Your task to perform on an android device: Open Reddit.com Image 0: 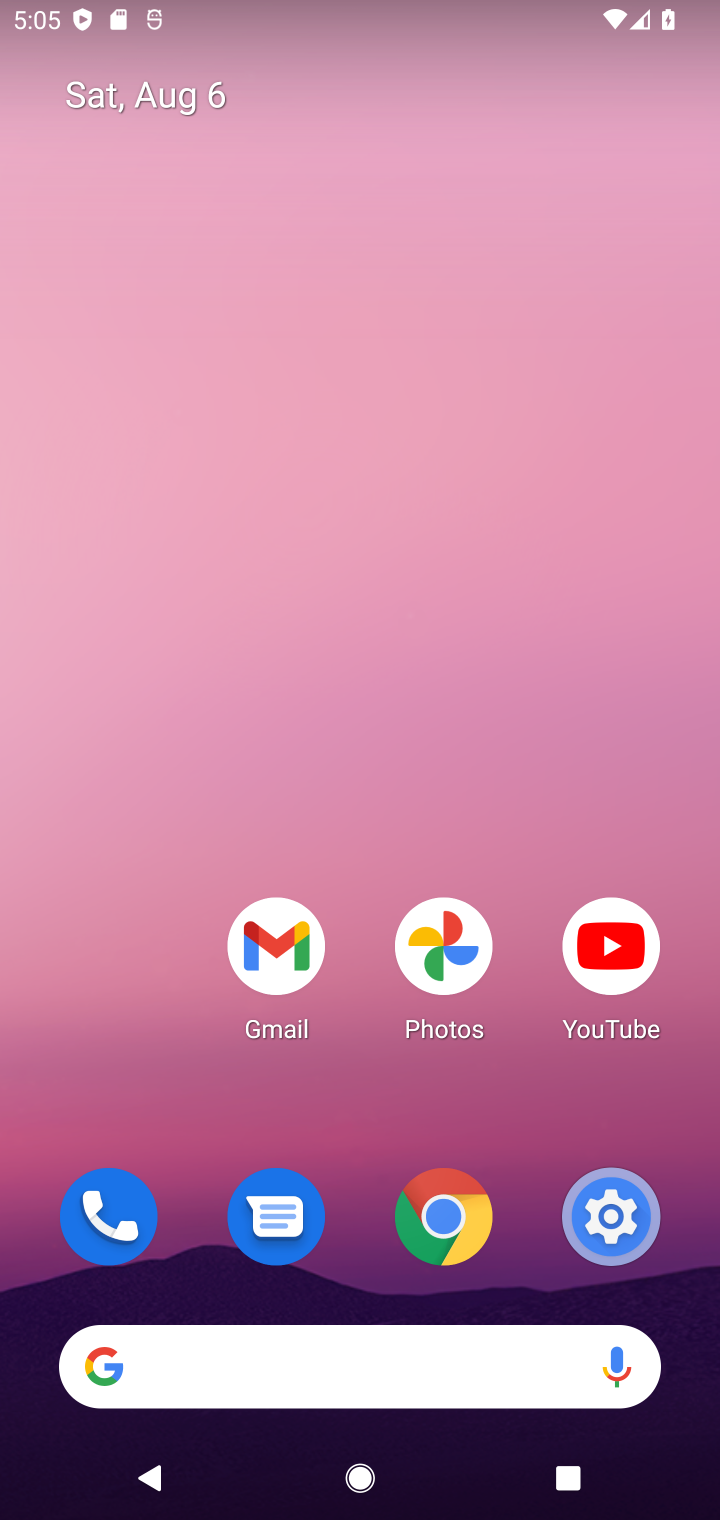
Step 0: drag from (290, 680) to (225, 16)
Your task to perform on an android device: Open Reddit.com Image 1: 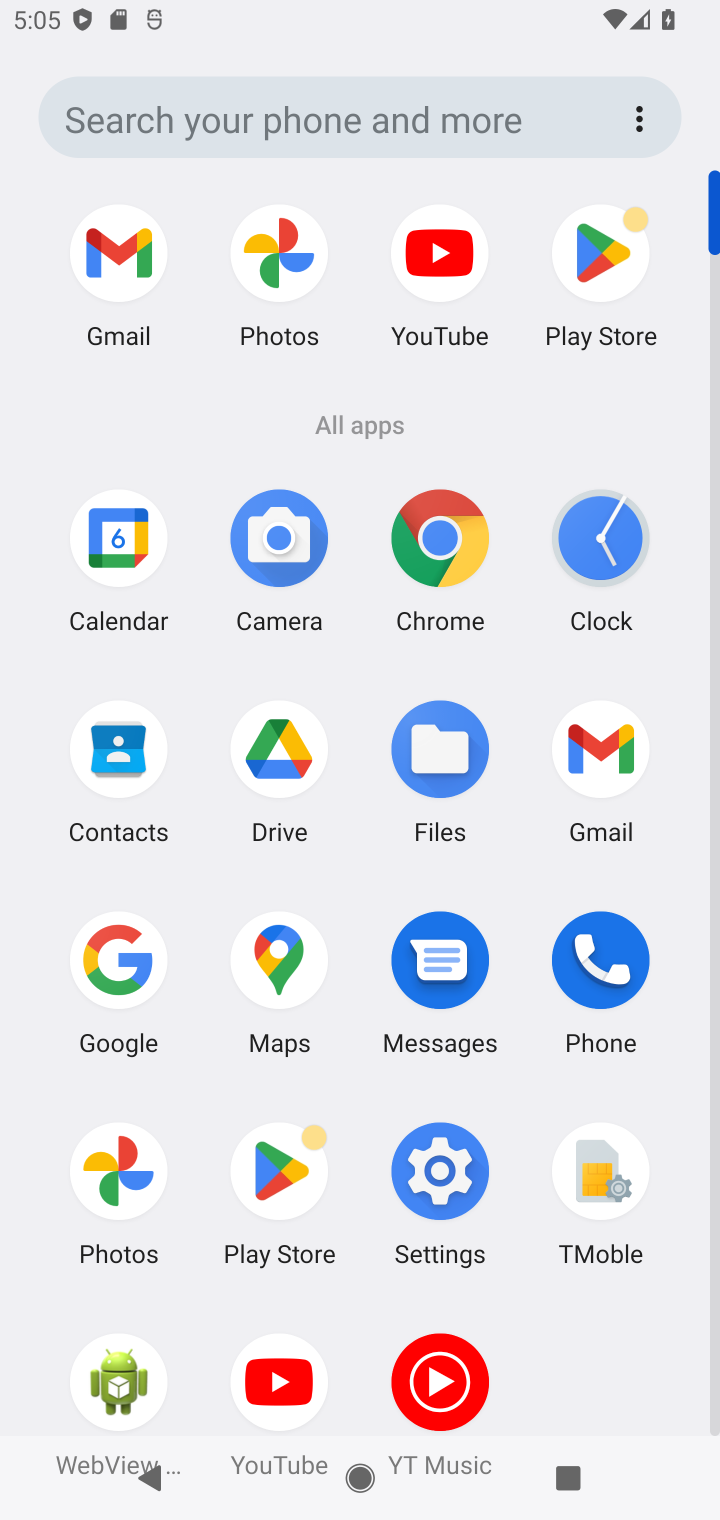
Step 1: click (431, 519)
Your task to perform on an android device: Open Reddit.com Image 2: 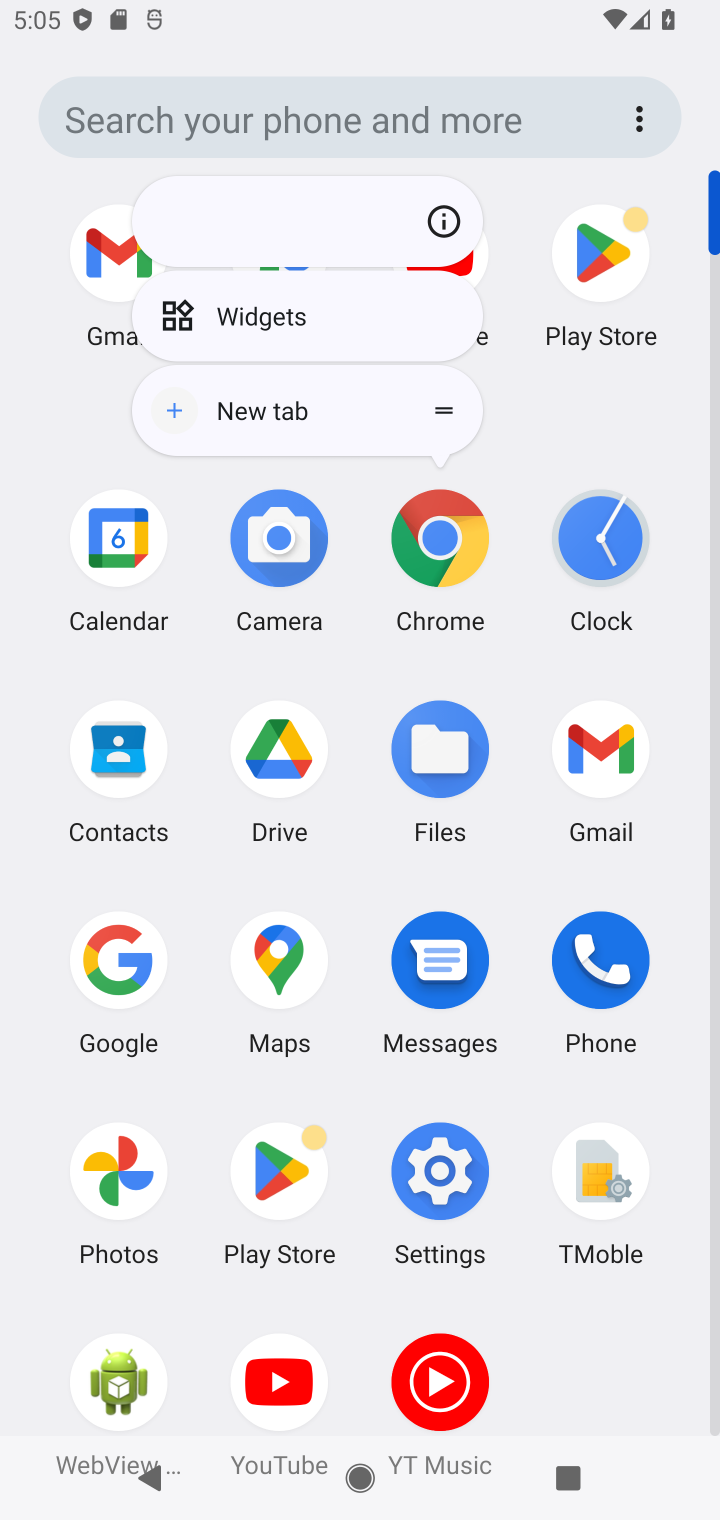
Step 2: click (453, 522)
Your task to perform on an android device: Open Reddit.com Image 3: 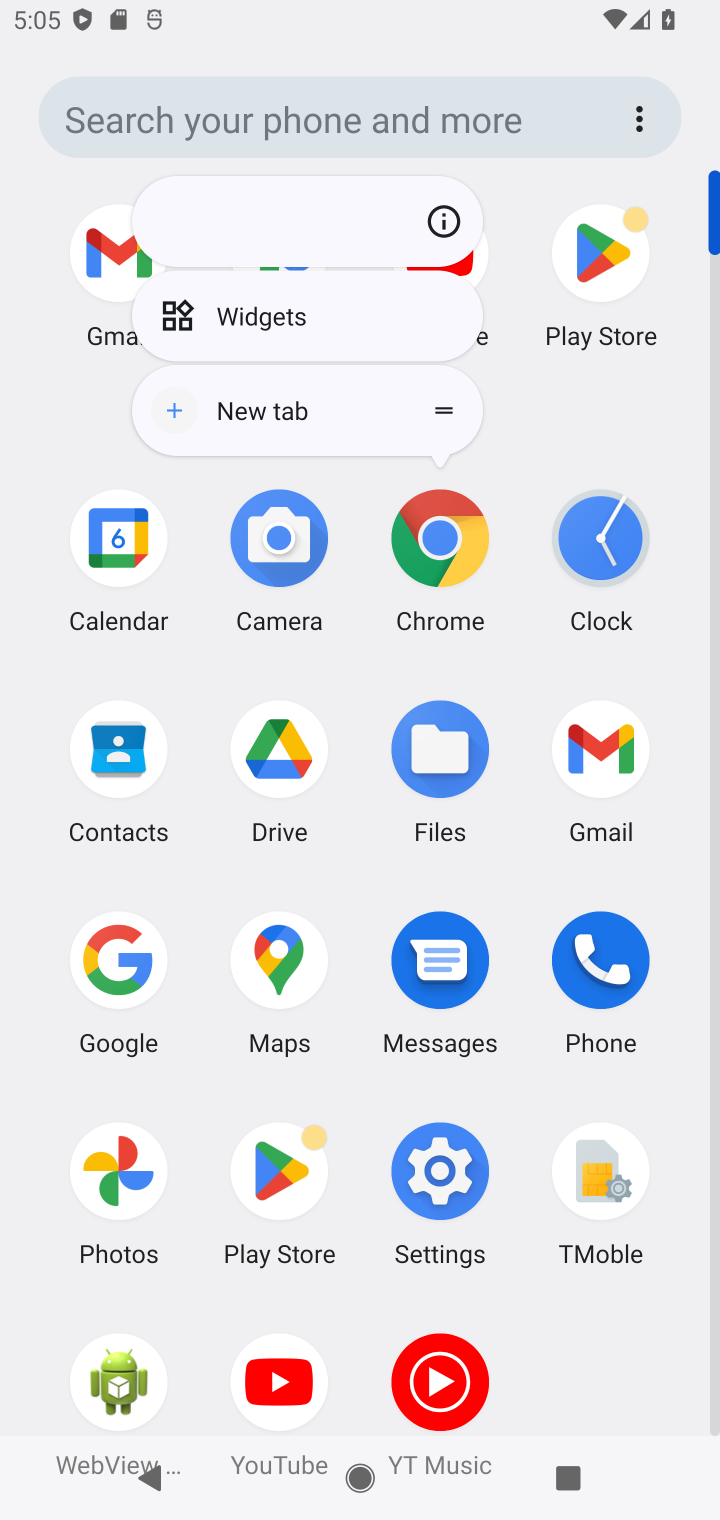
Step 3: click (434, 534)
Your task to perform on an android device: Open Reddit.com Image 4: 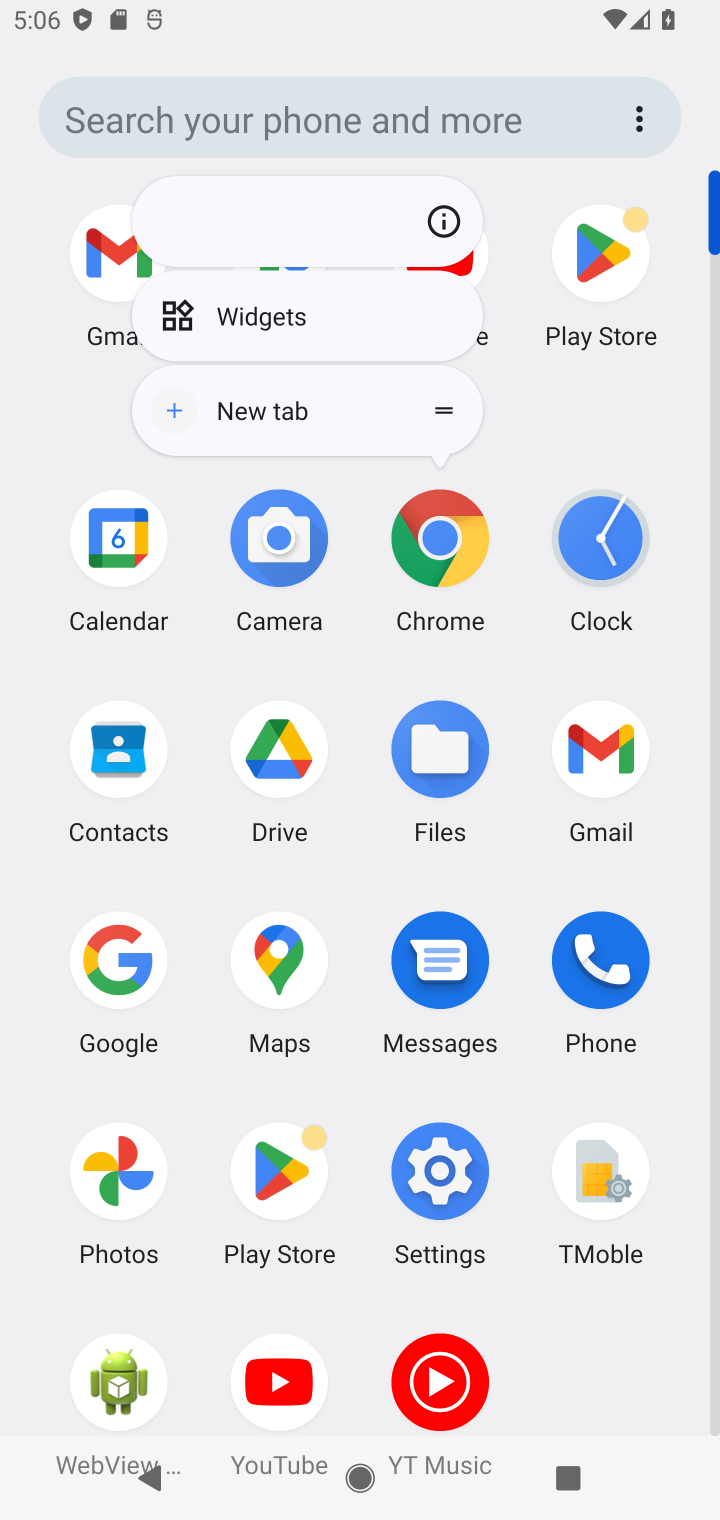
Step 4: click (547, 654)
Your task to perform on an android device: Open Reddit.com Image 5: 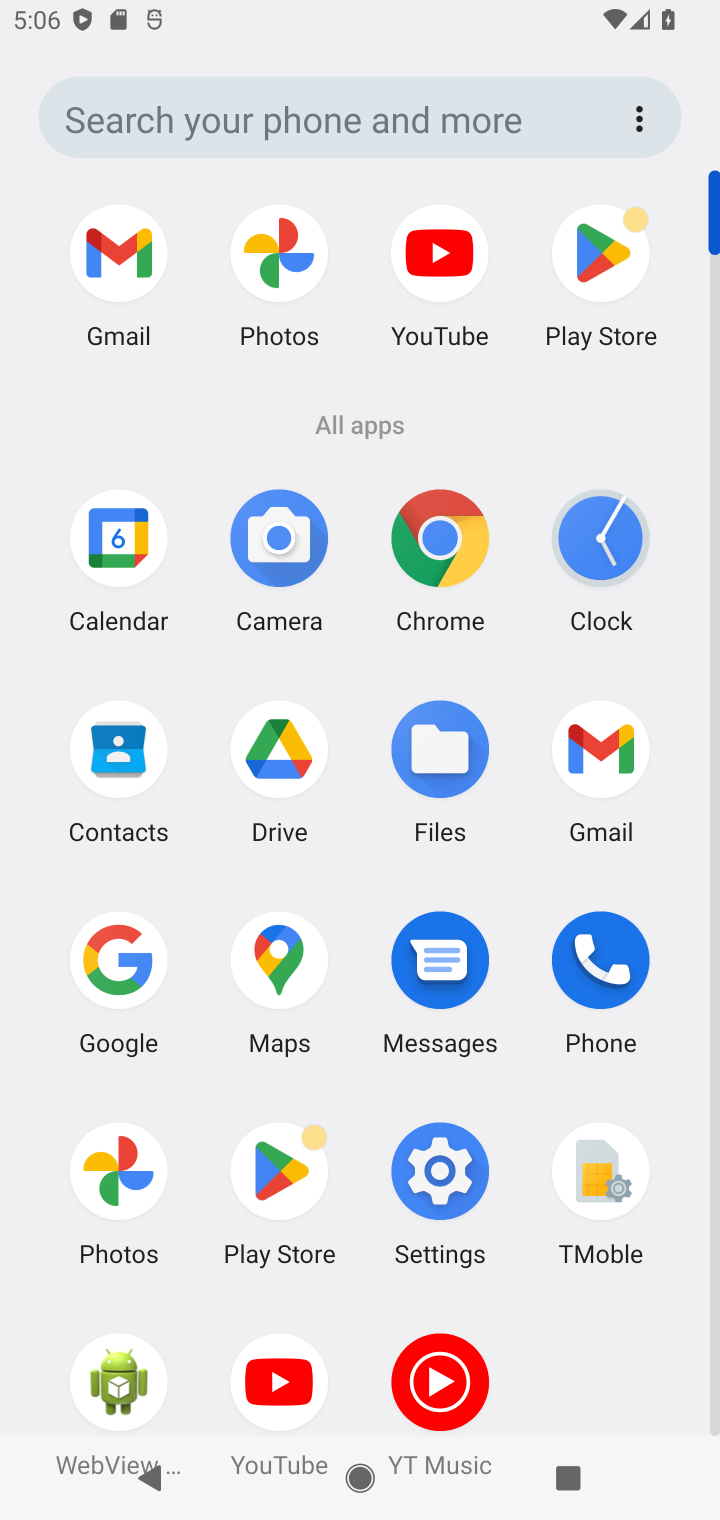
Step 5: click (451, 538)
Your task to perform on an android device: Open Reddit.com Image 6: 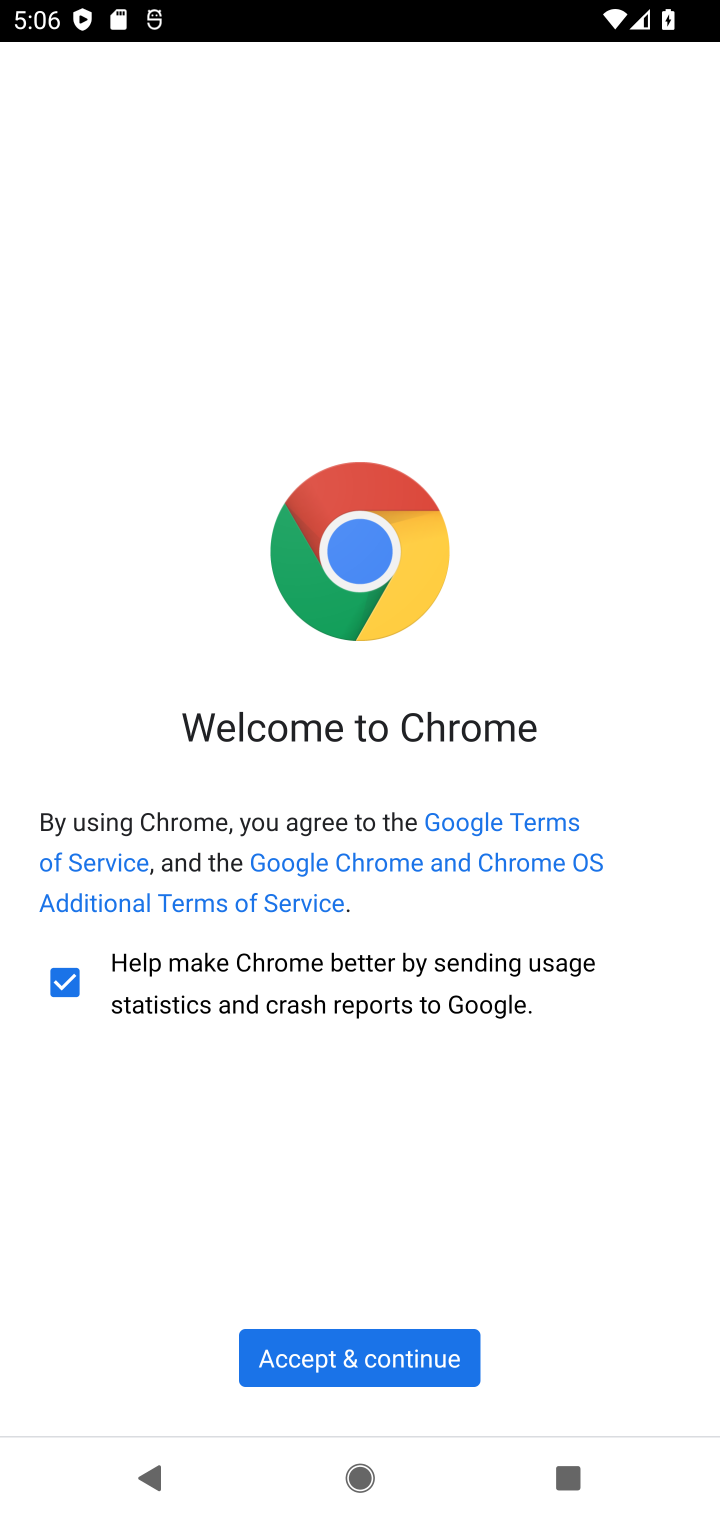
Step 6: click (319, 1312)
Your task to perform on an android device: Open Reddit.com Image 7: 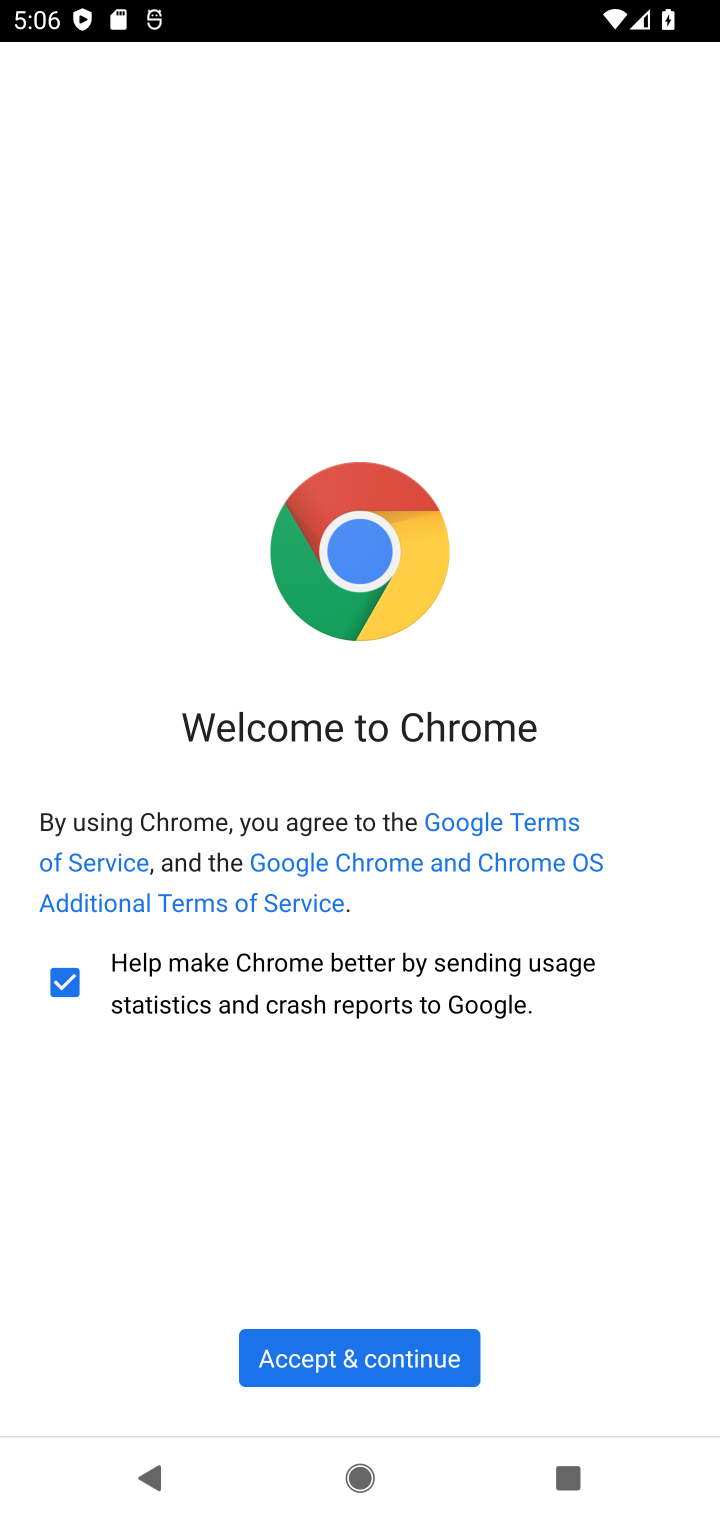
Step 7: click (372, 1360)
Your task to perform on an android device: Open Reddit.com Image 8: 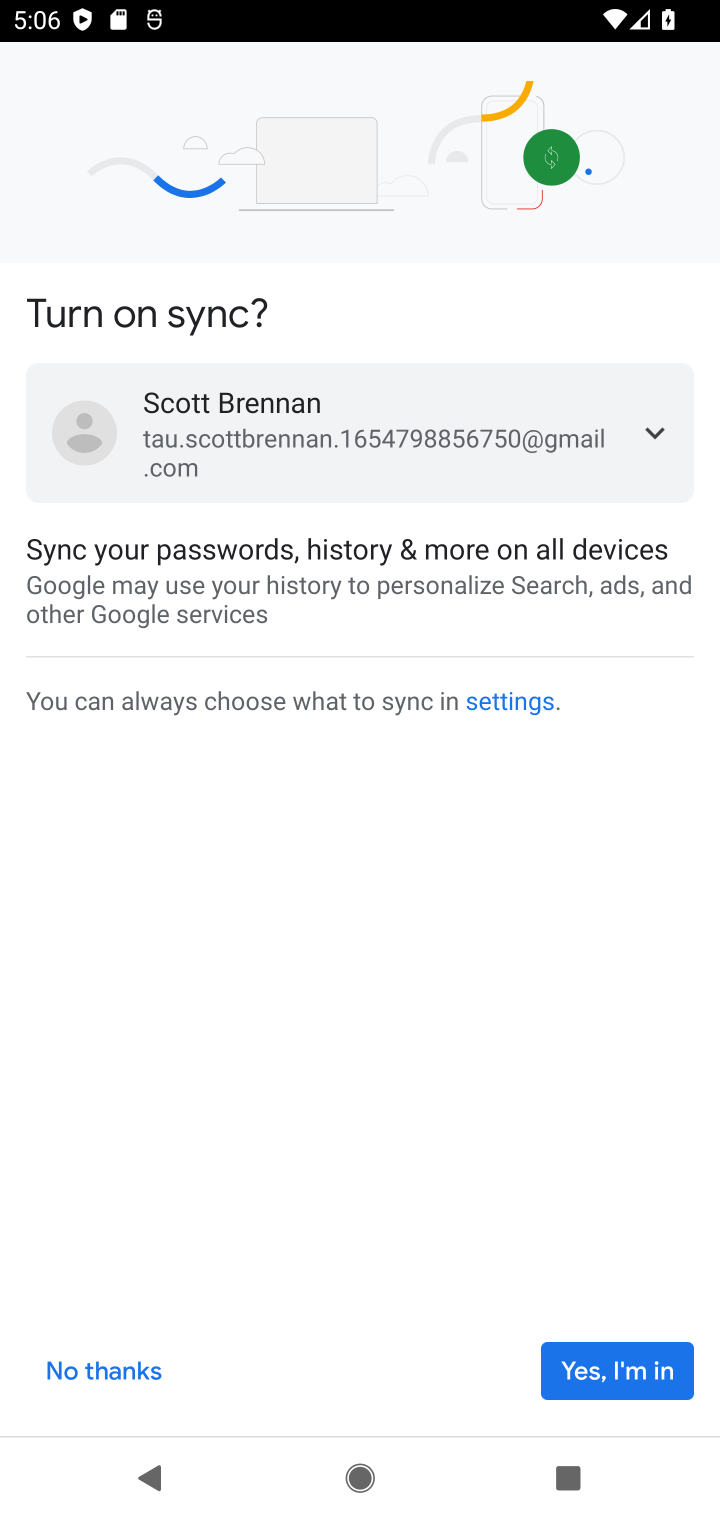
Step 8: click (565, 1371)
Your task to perform on an android device: Open Reddit.com Image 9: 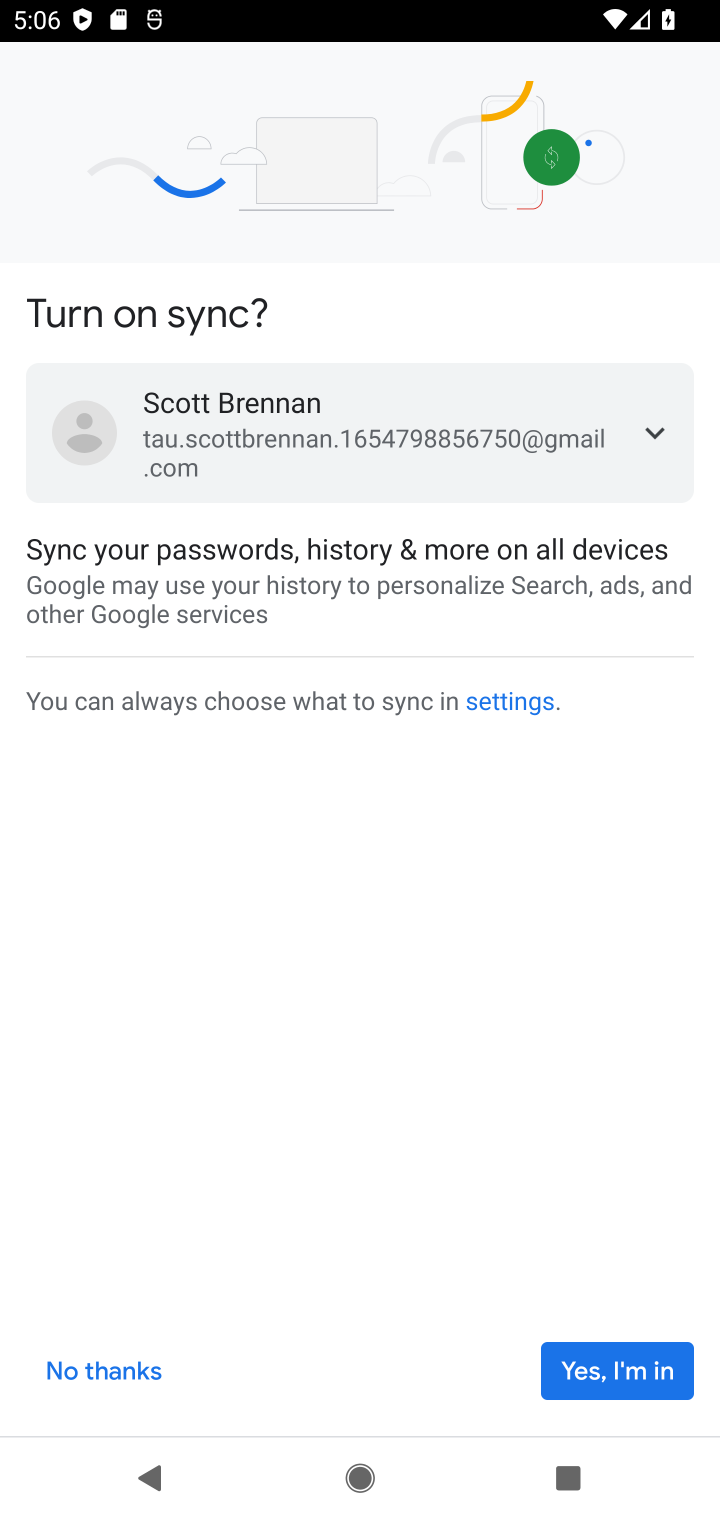
Step 9: click (565, 1364)
Your task to perform on an android device: Open Reddit.com Image 10: 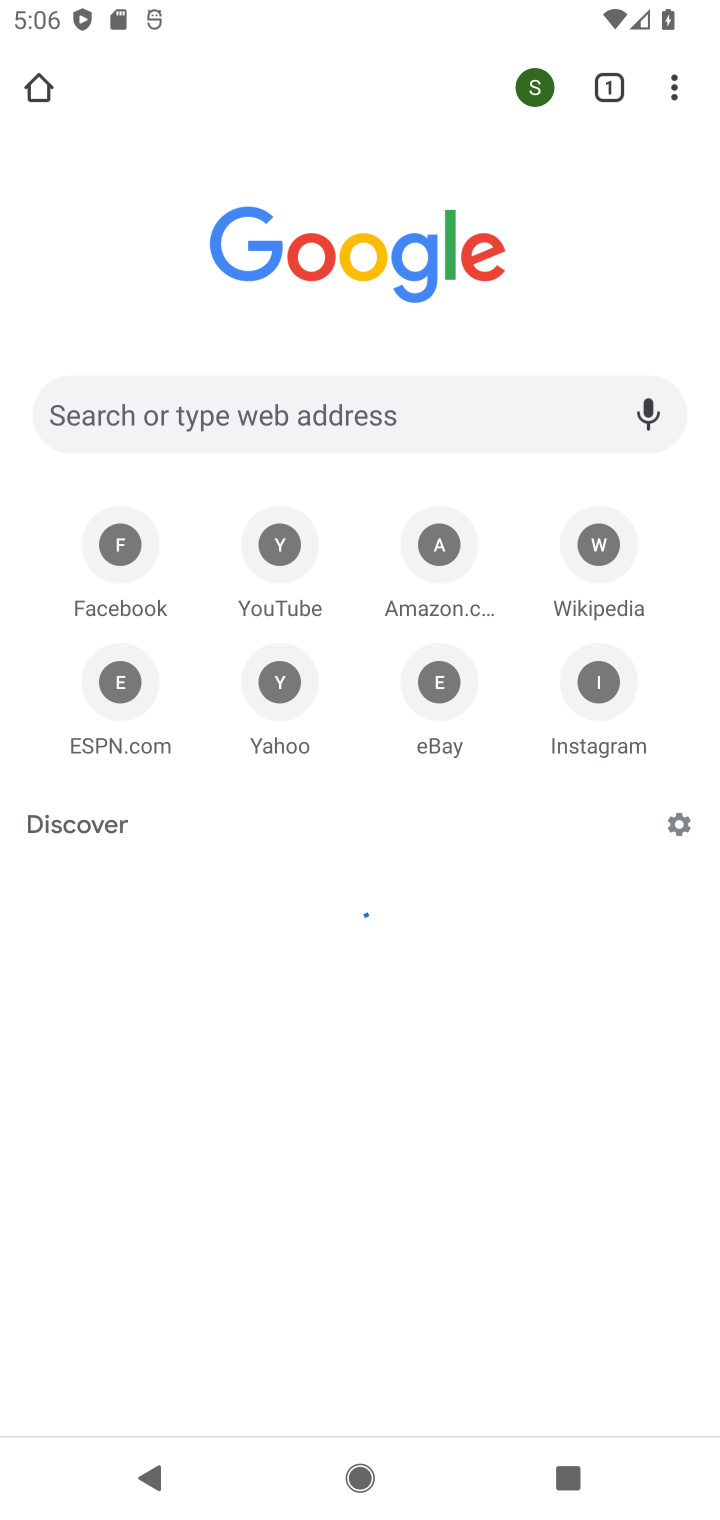
Step 10: click (386, 399)
Your task to perform on an android device: Open Reddit.com Image 11: 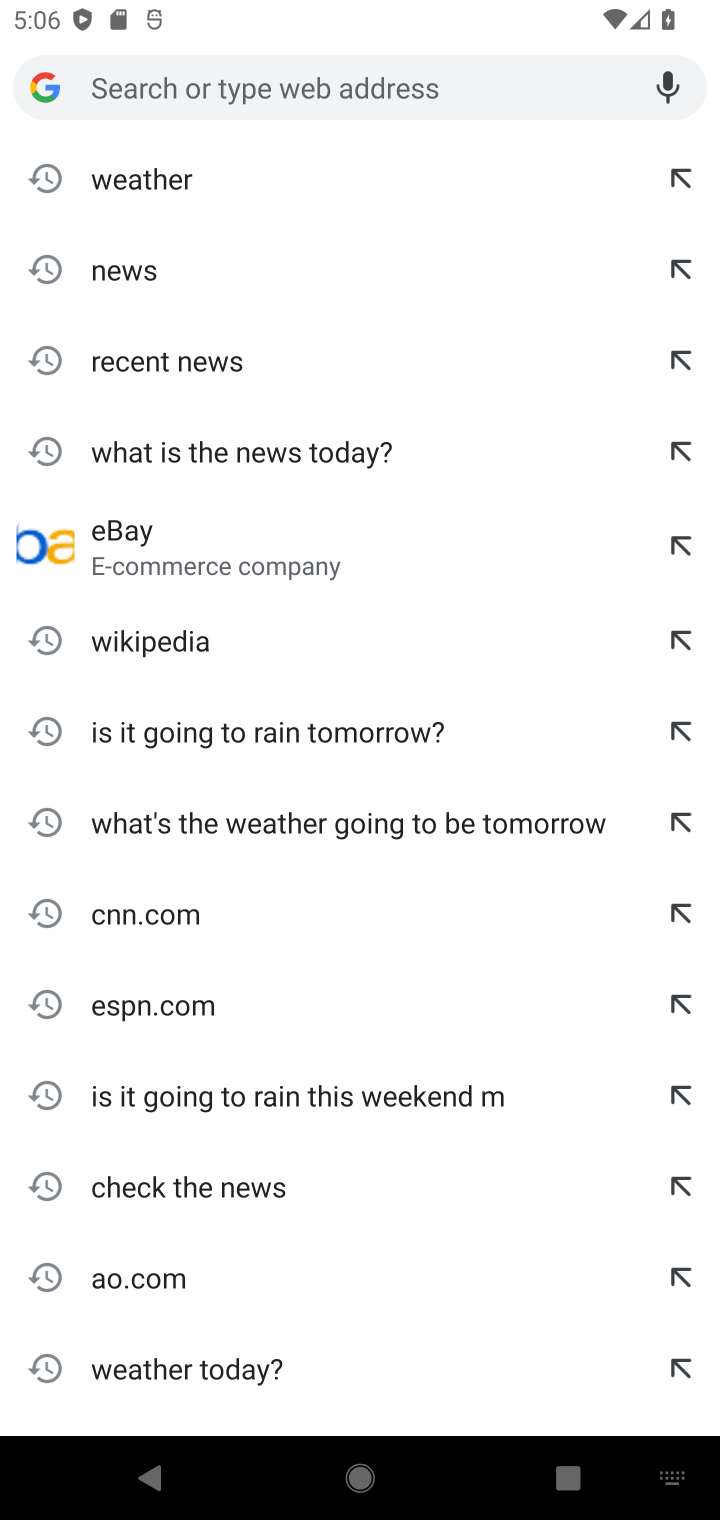
Step 11: type "reddit.com"
Your task to perform on an android device: Open Reddit.com Image 12: 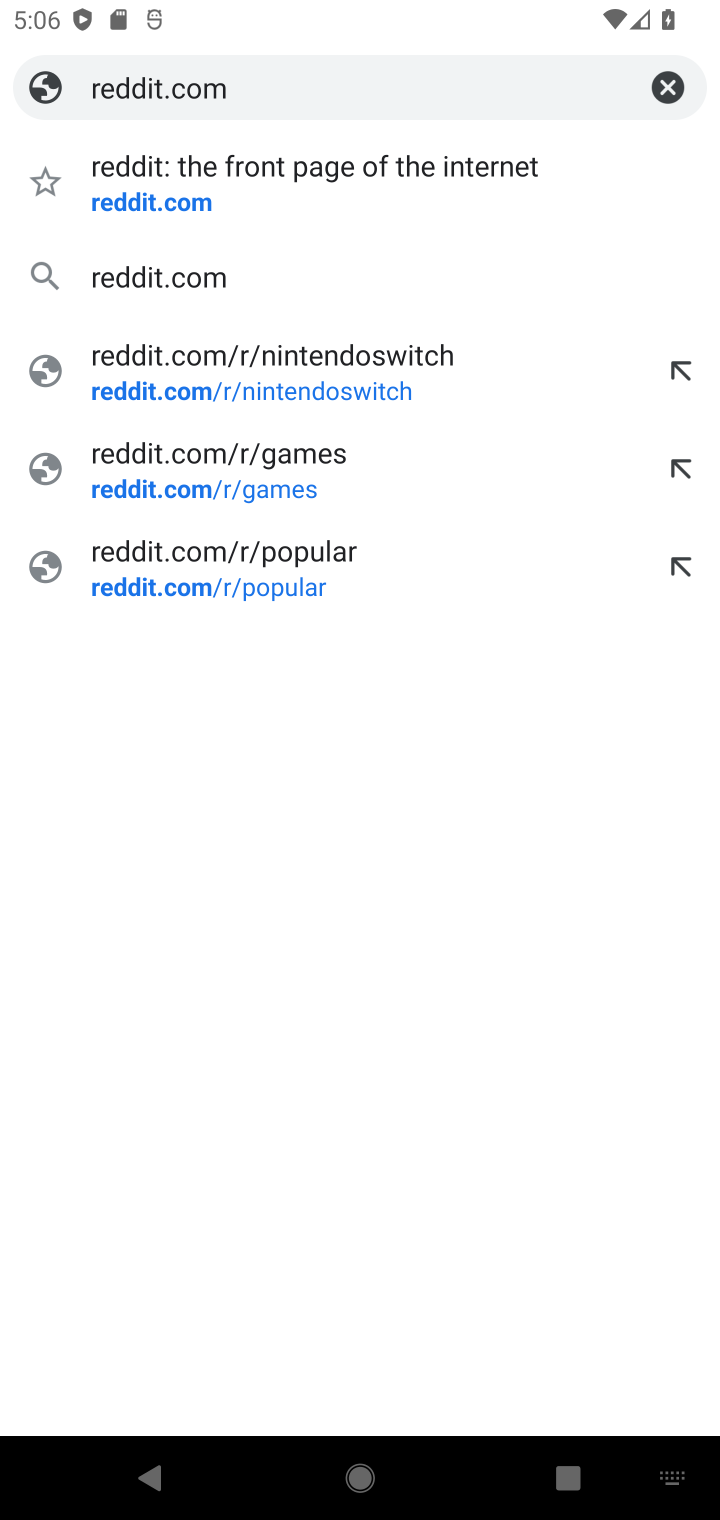
Step 12: click (125, 168)
Your task to perform on an android device: Open Reddit.com Image 13: 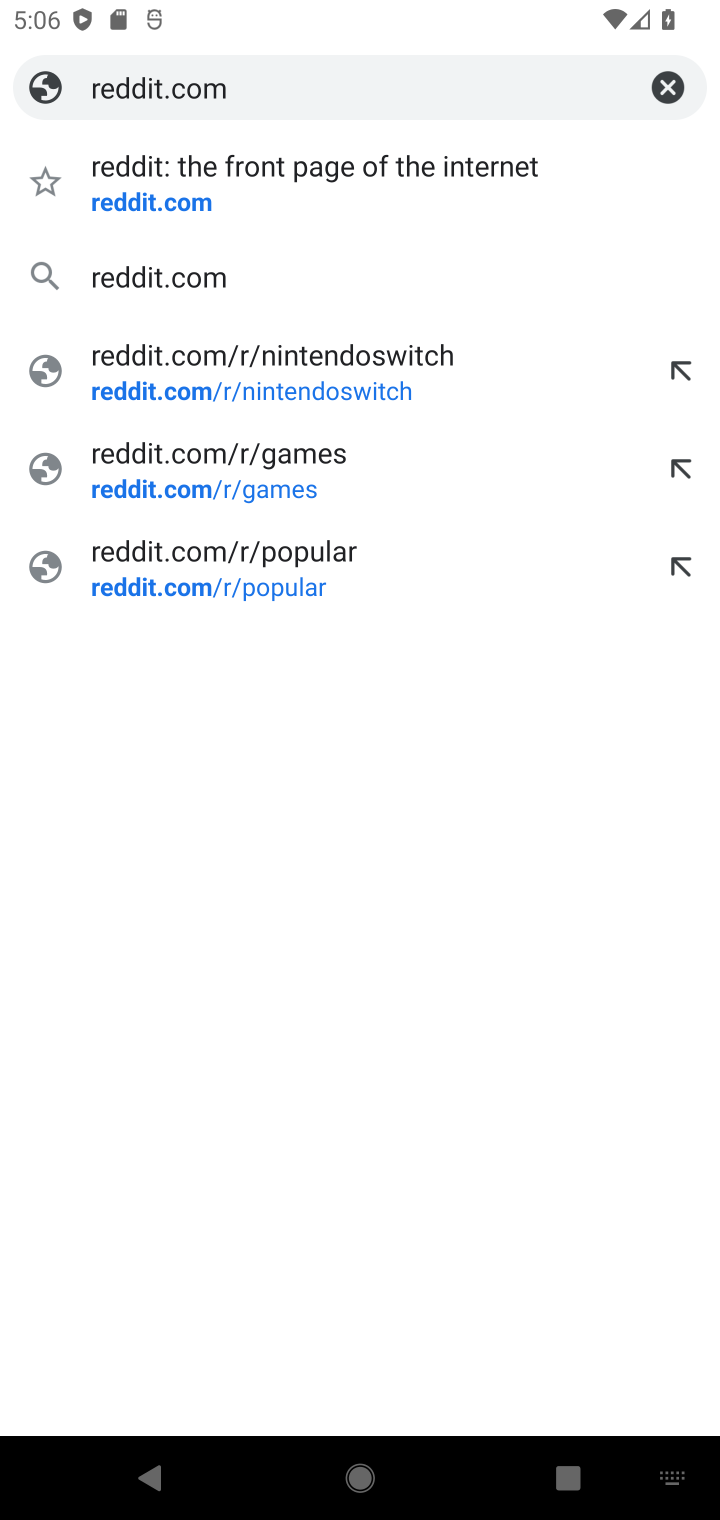
Step 13: click (115, 207)
Your task to perform on an android device: Open Reddit.com Image 14: 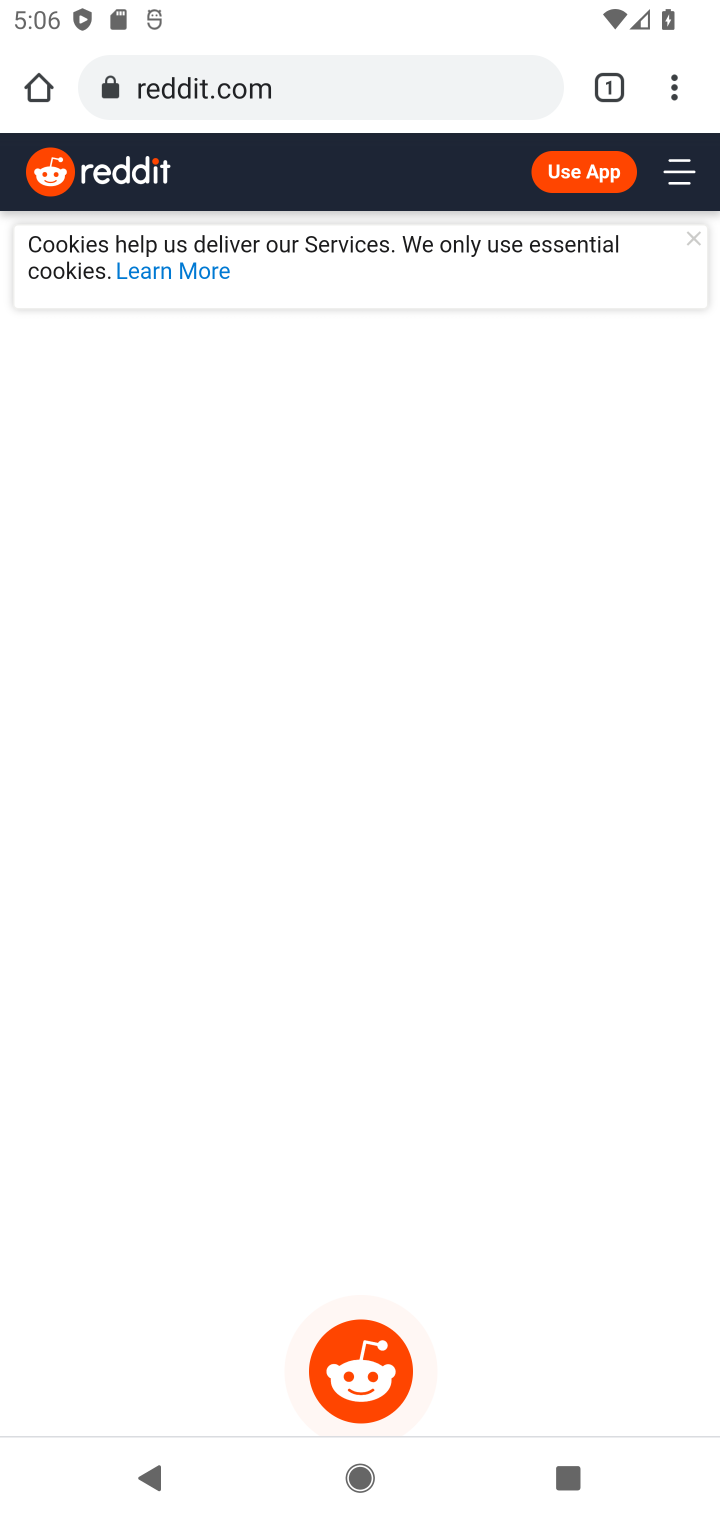
Step 14: task complete